Your task to perform on an android device: turn notification dots off Image 0: 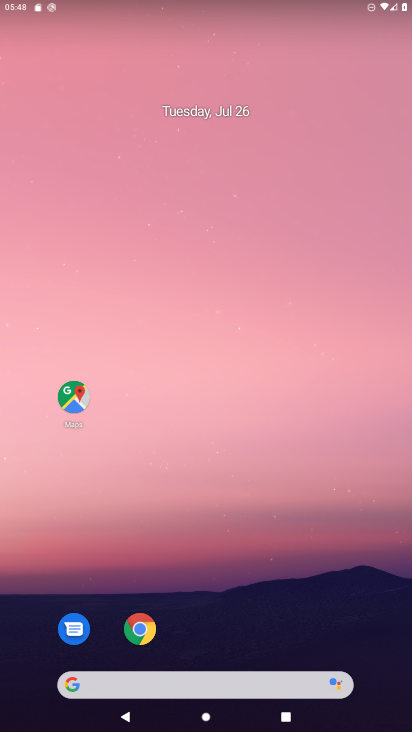
Step 0: drag from (164, 482) to (129, 16)
Your task to perform on an android device: turn notification dots off Image 1: 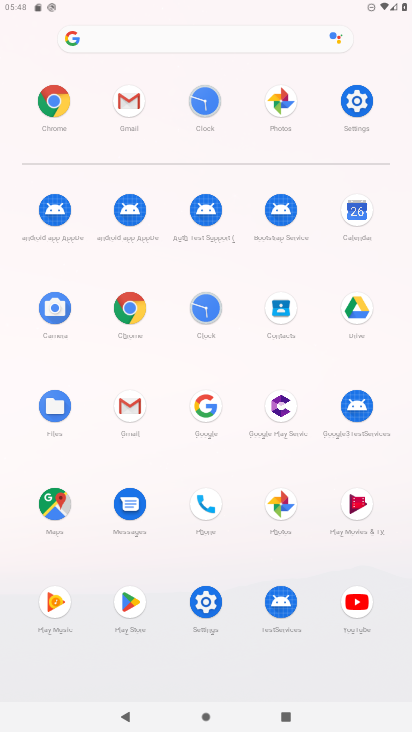
Step 1: click (359, 109)
Your task to perform on an android device: turn notification dots off Image 2: 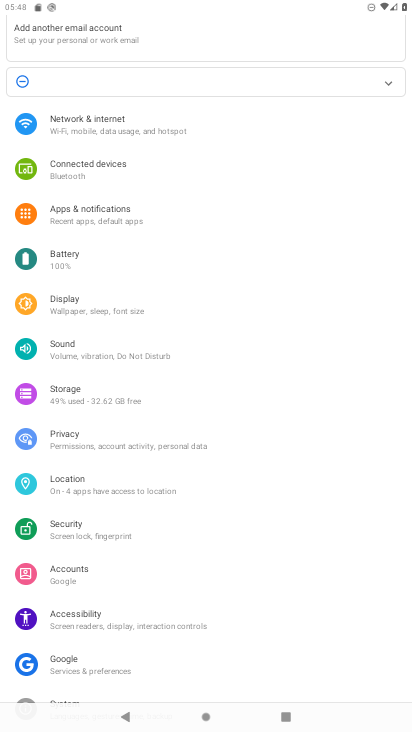
Step 2: click (119, 221)
Your task to perform on an android device: turn notification dots off Image 3: 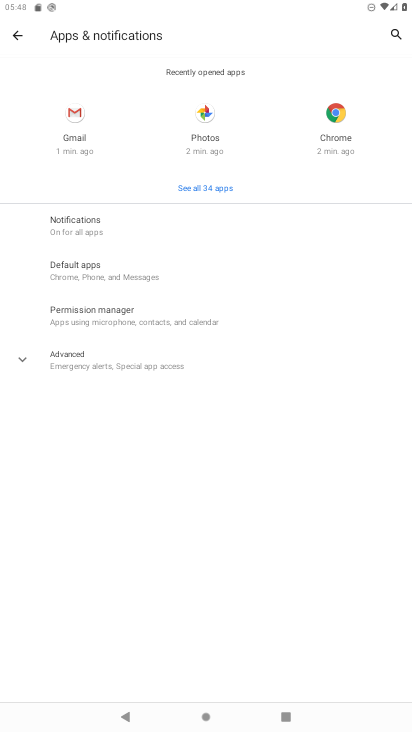
Step 3: click (87, 223)
Your task to perform on an android device: turn notification dots off Image 4: 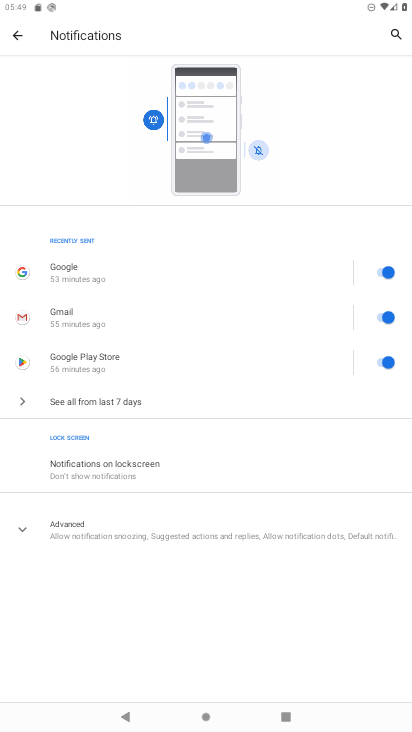
Step 4: click (73, 529)
Your task to perform on an android device: turn notification dots off Image 5: 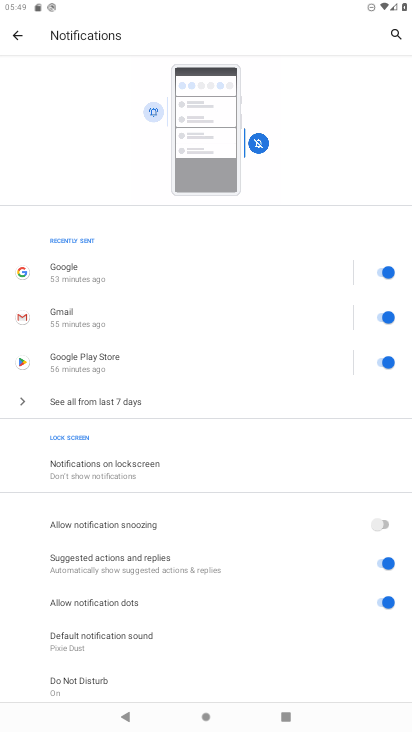
Step 5: click (377, 599)
Your task to perform on an android device: turn notification dots off Image 6: 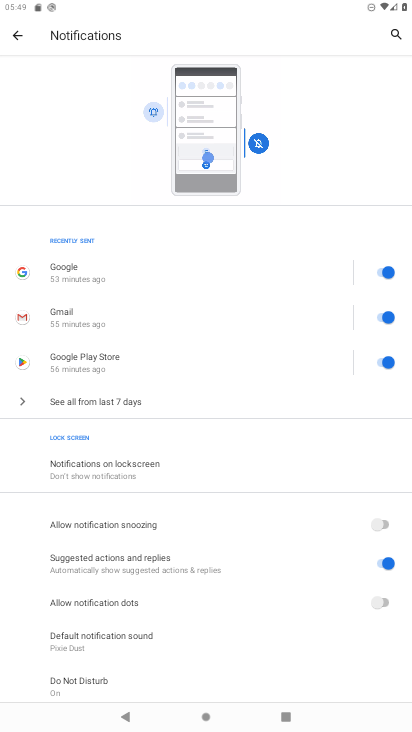
Step 6: task complete